Your task to perform on an android device: Go to sound settings Image 0: 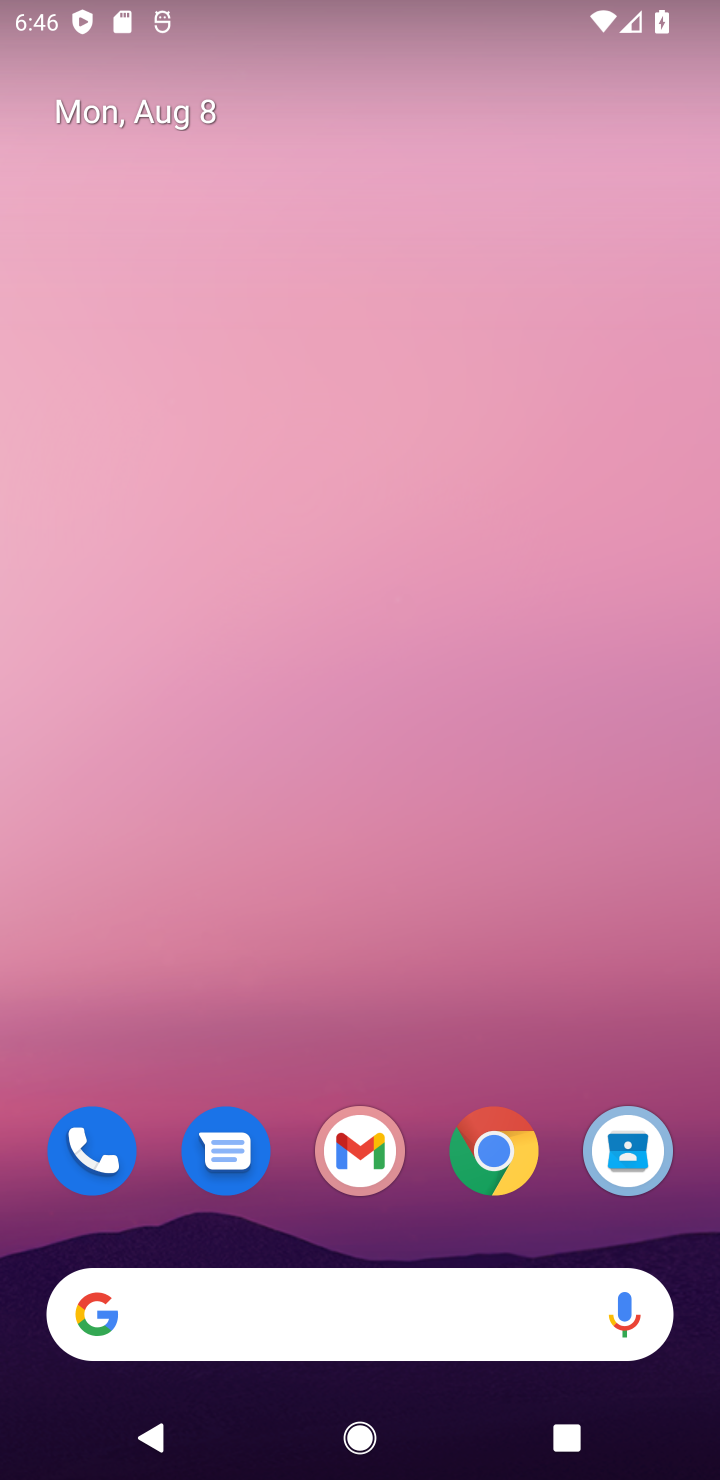
Step 0: drag from (332, 1065) to (397, 86)
Your task to perform on an android device: Go to sound settings Image 1: 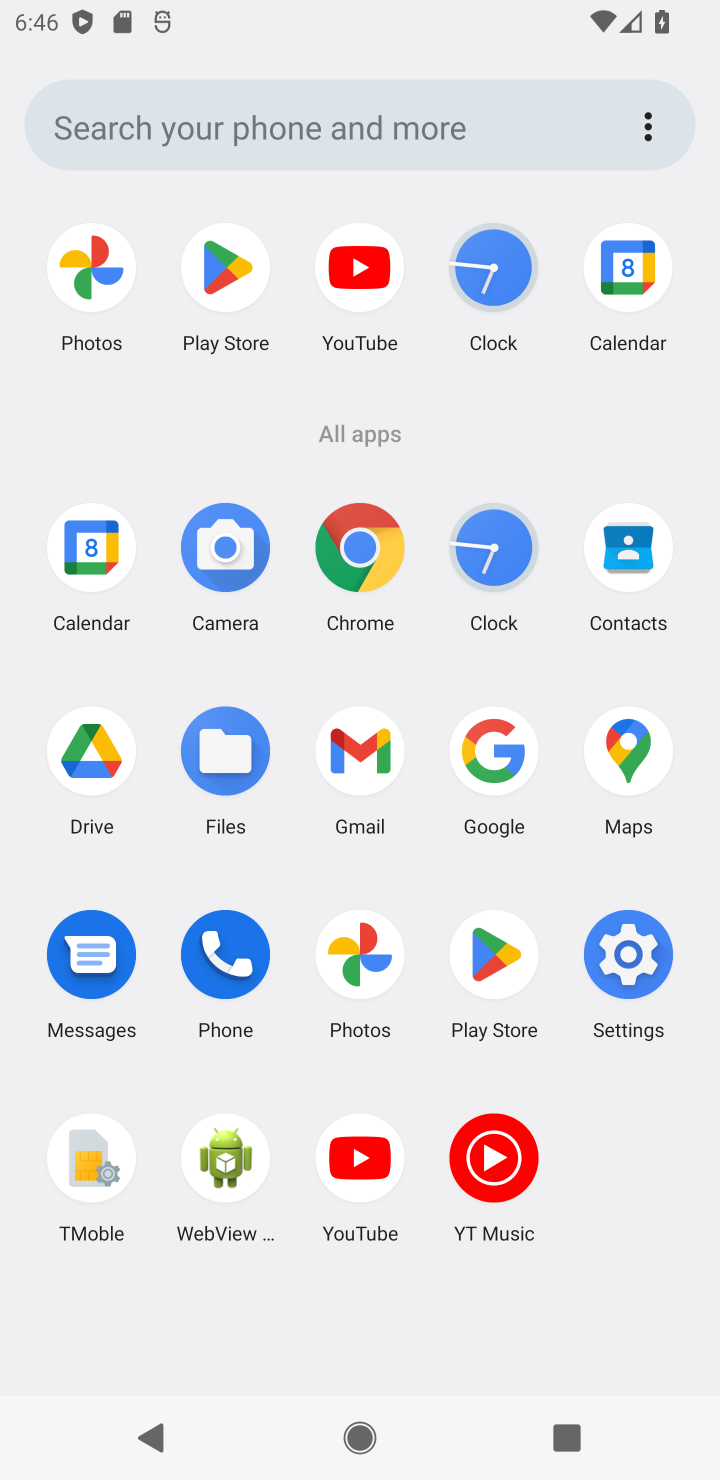
Step 1: click (629, 956)
Your task to perform on an android device: Go to sound settings Image 2: 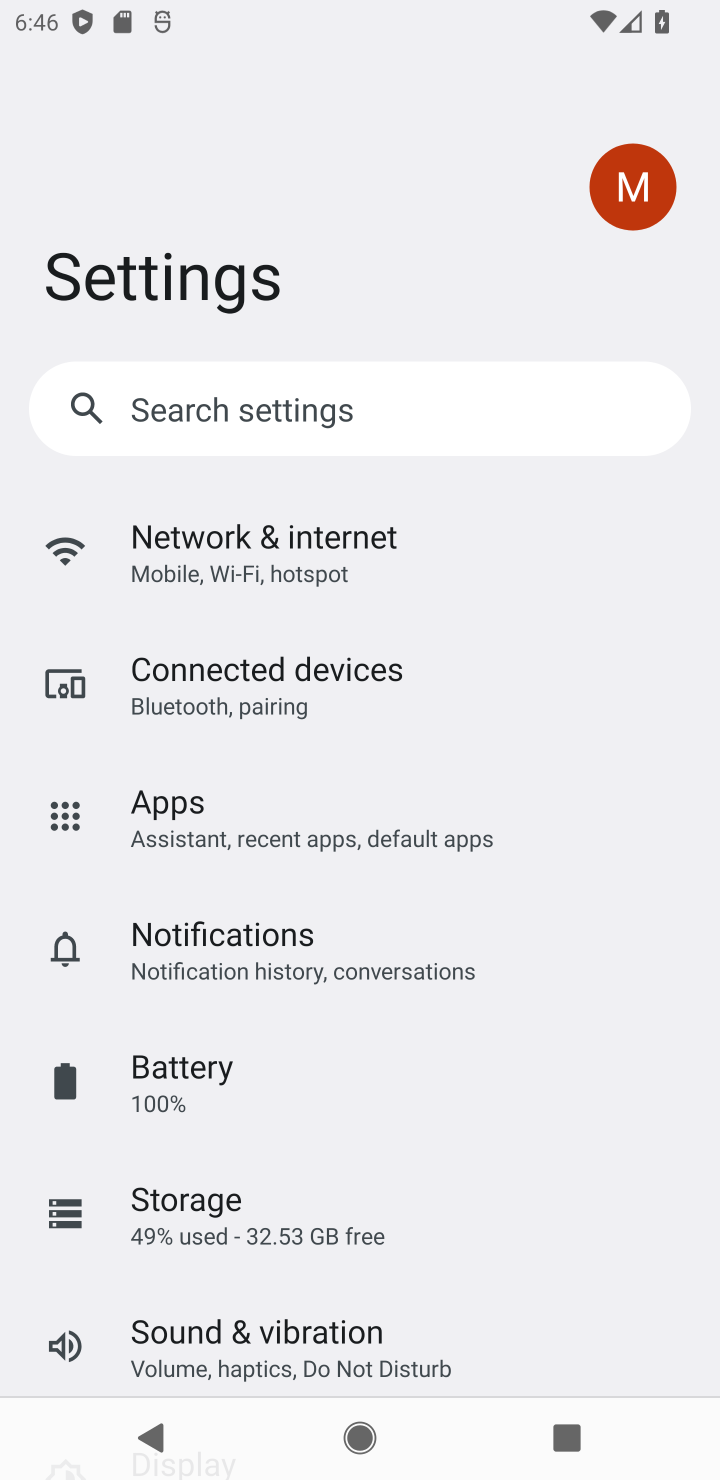
Step 2: drag from (224, 1186) to (181, 629)
Your task to perform on an android device: Go to sound settings Image 3: 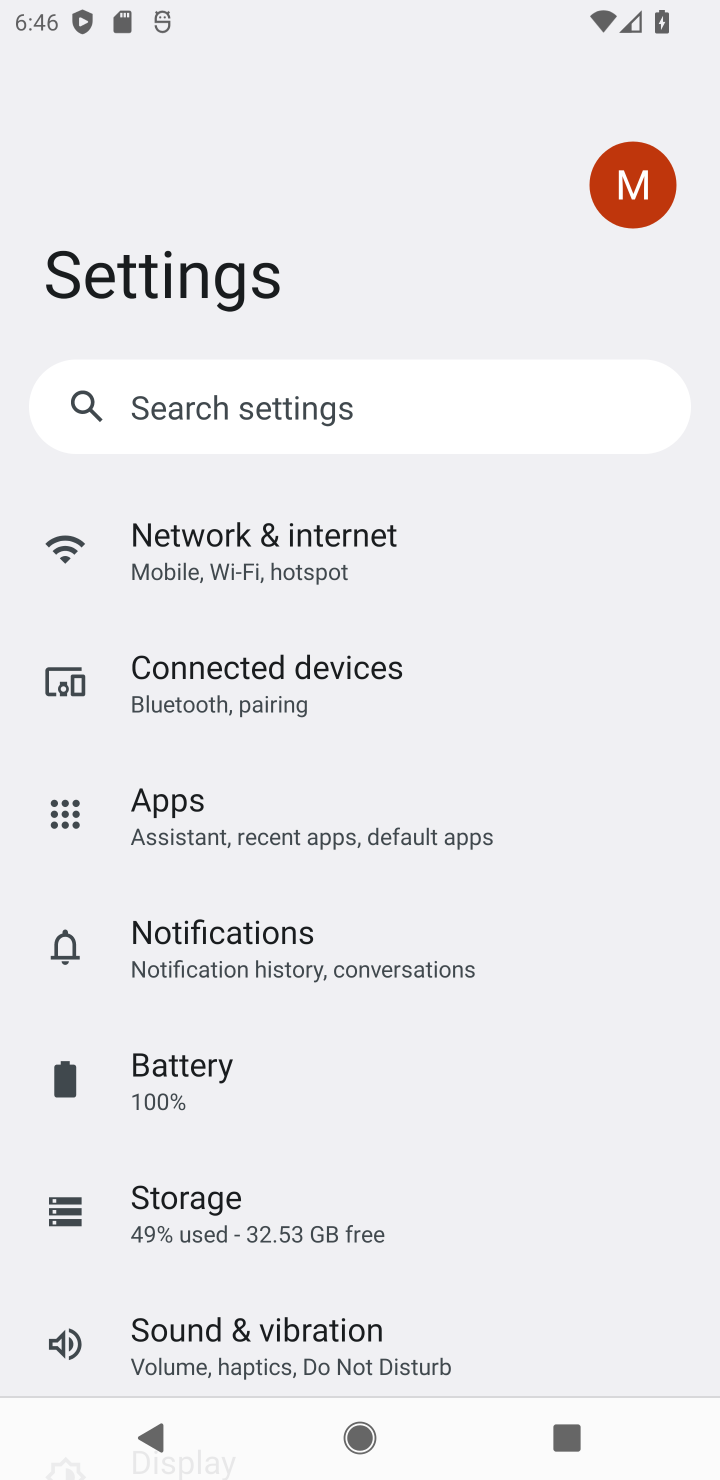
Step 3: drag from (202, 1214) to (215, 363)
Your task to perform on an android device: Go to sound settings Image 4: 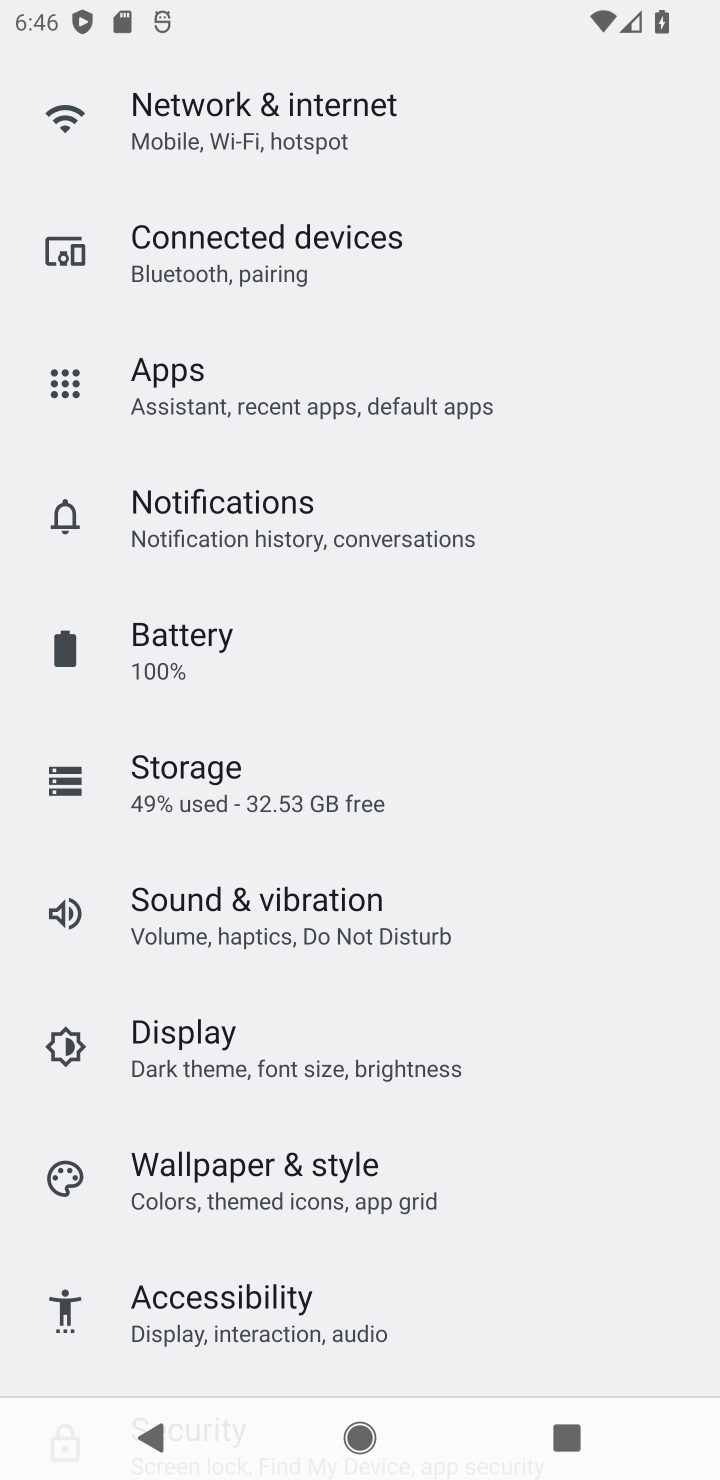
Step 4: click (326, 889)
Your task to perform on an android device: Go to sound settings Image 5: 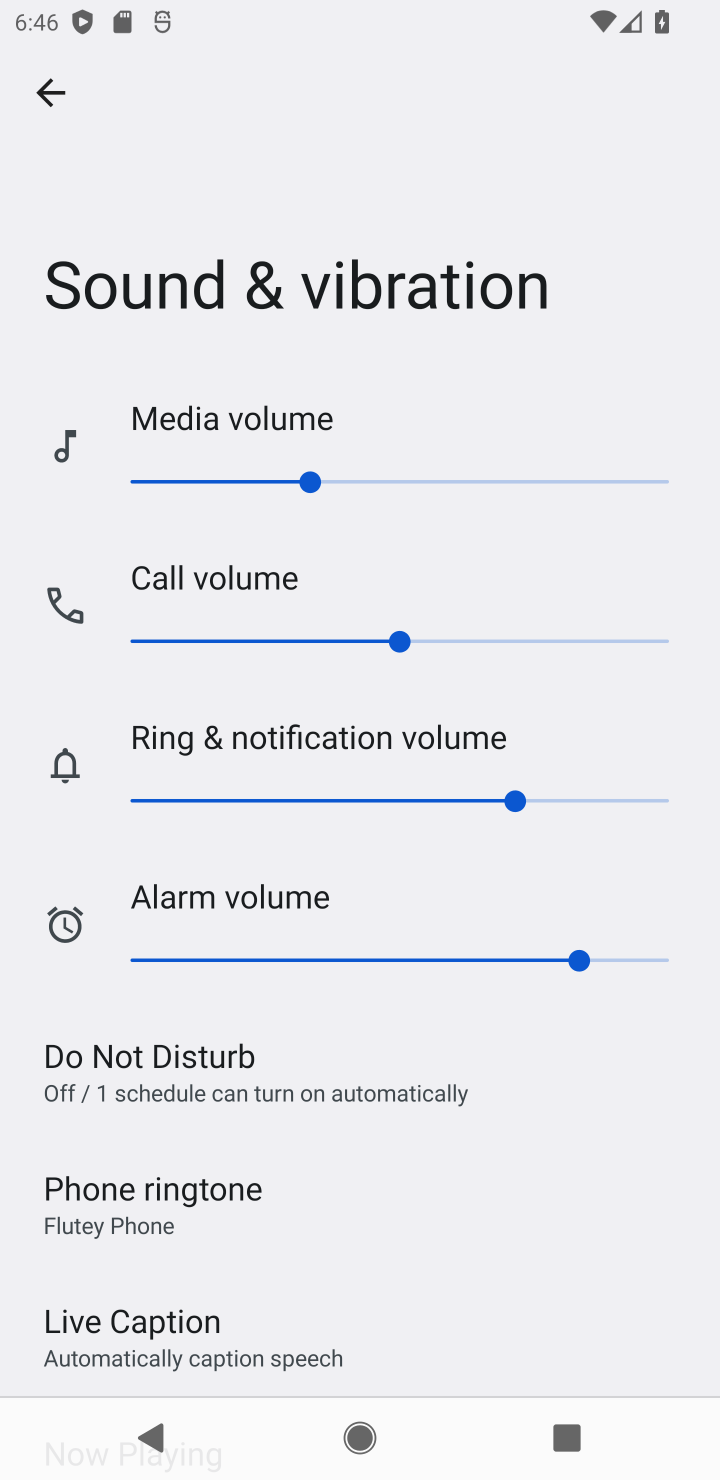
Step 5: task complete